Your task to perform on an android device: toggle translation in the chrome app Image 0: 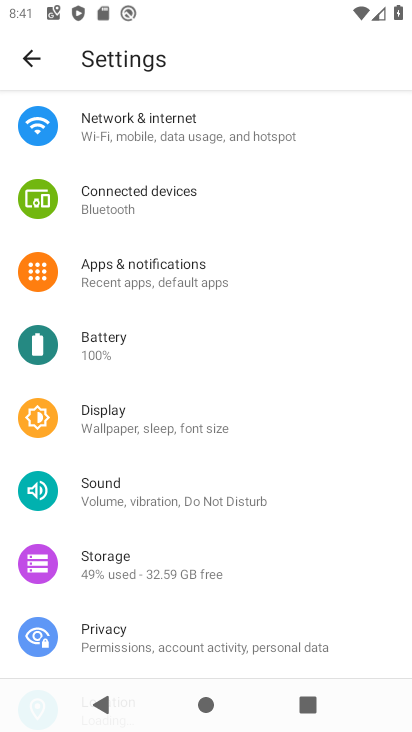
Step 0: press home button
Your task to perform on an android device: toggle translation in the chrome app Image 1: 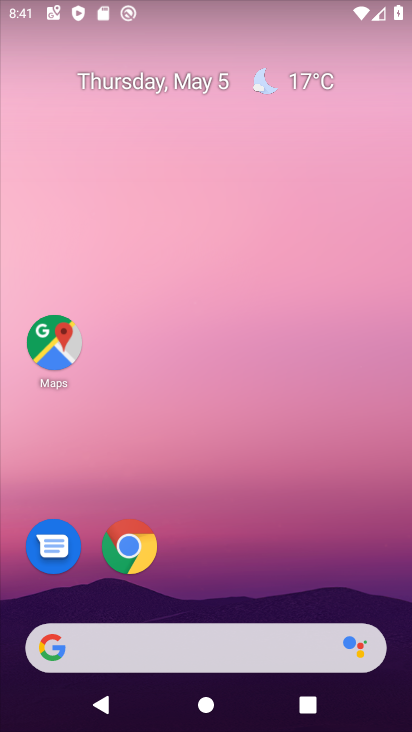
Step 1: drag from (150, 653) to (322, 85)
Your task to perform on an android device: toggle translation in the chrome app Image 2: 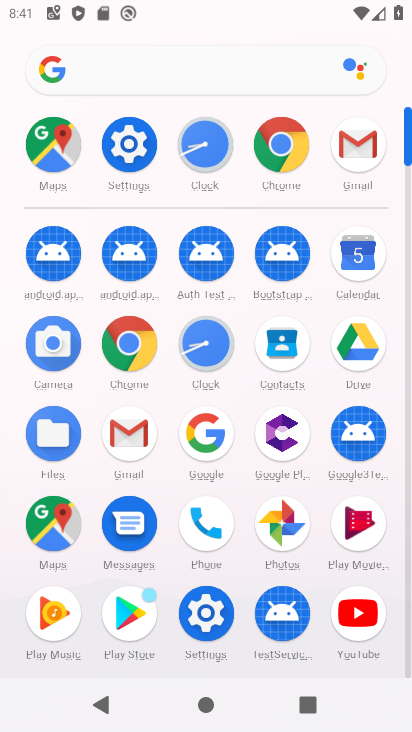
Step 2: click (277, 151)
Your task to perform on an android device: toggle translation in the chrome app Image 3: 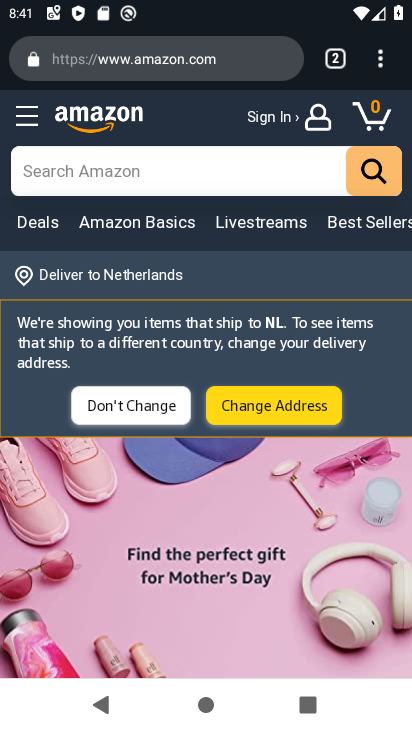
Step 3: drag from (380, 65) to (215, 561)
Your task to perform on an android device: toggle translation in the chrome app Image 4: 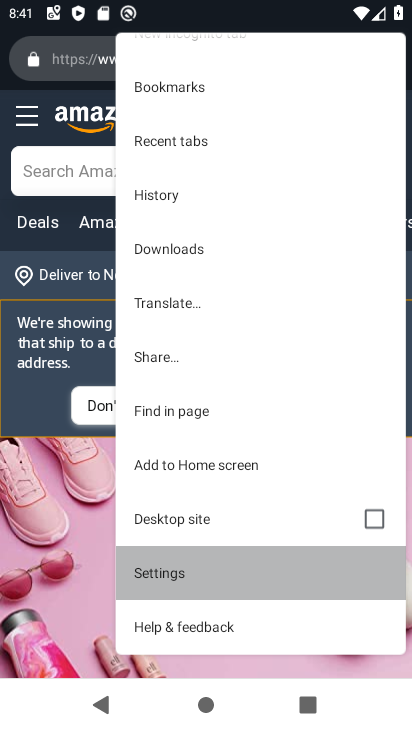
Step 4: click (215, 561)
Your task to perform on an android device: toggle translation in the chrome app Image 5: 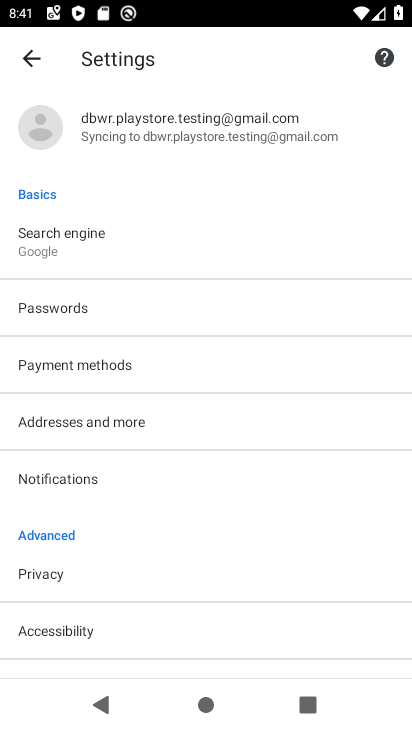
Step 5: drag from (136, 637) to (267, 397)
Your task to perform on an android device: toggle translation in the chrome app Image 6: 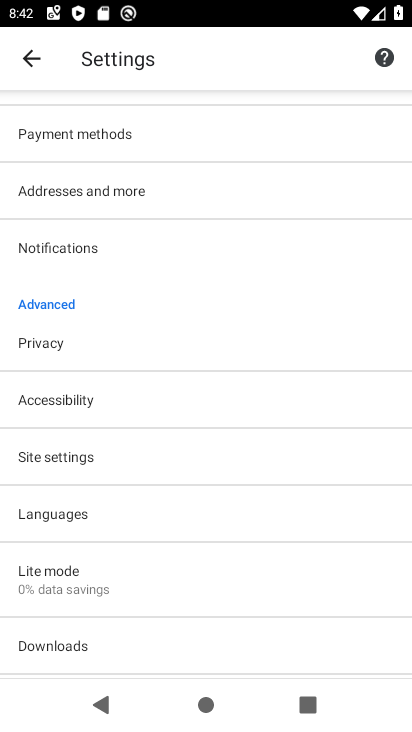
Step 6: click (100, 517)
Your task to perform on an android device: toggle translation in the chrome app Image 7: 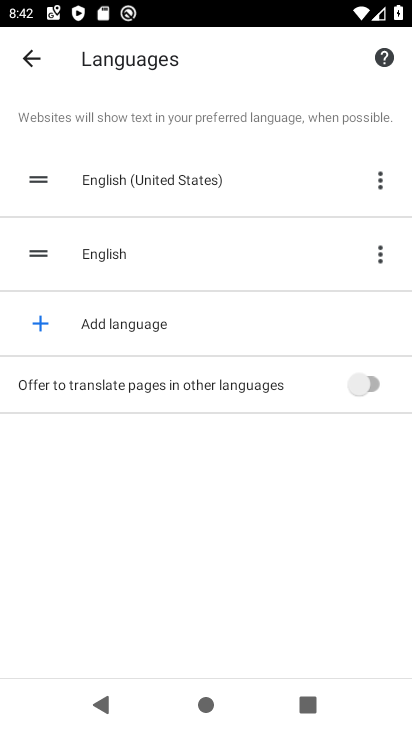
Step 7: click (375, 384)
Your task to perform on an android device: toggle translation in the chrome app Image 8: 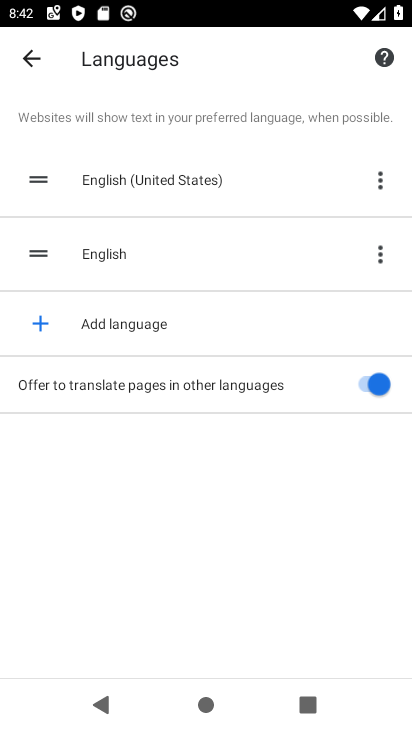
Step 8: task complete